Your task to perform on an android device: toggle pop-ups in chrome Image 0: 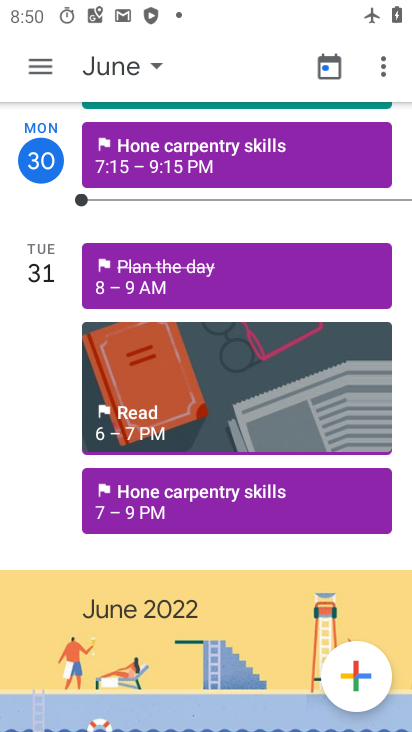
Step 0: drag from (340, 385) to (366, 137)
Your task to perform on an android device: toggle pop-ups in chrome Image 1: 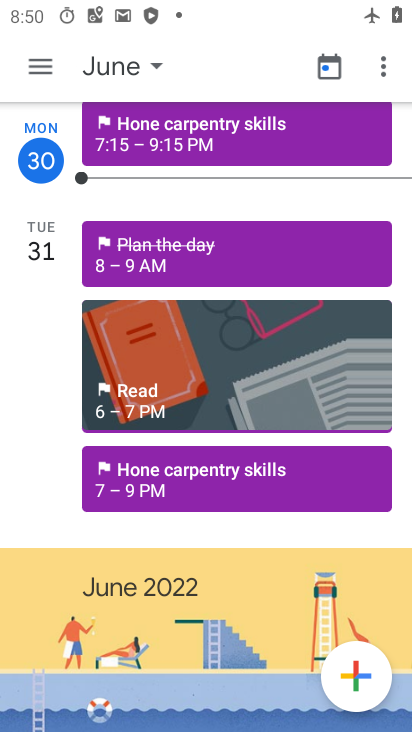
Step 1: press home button
Your task to perform on an android device: toggle pop-ups in chrome Image 2: 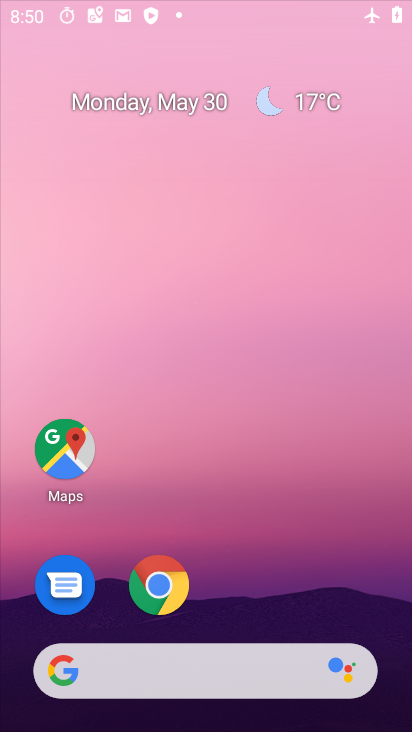
Step 2: drag from (226, 414) to (296, 9)
Your task to perform on an android device: toggle pop-ups in chrome Image 3: 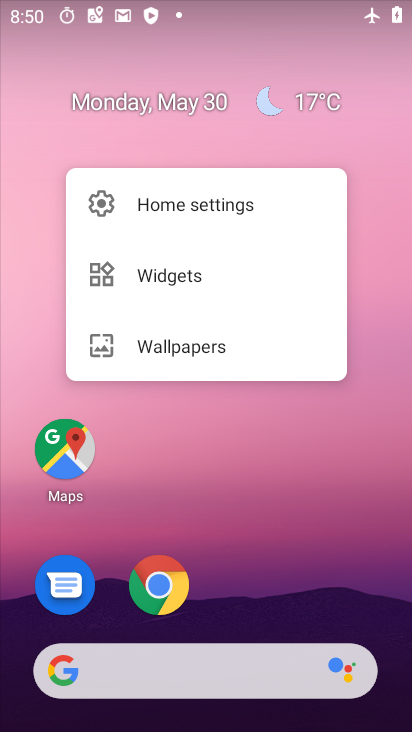
Step 3: click (213, 548)
Your task to perform on an android device: toggle pop-ups in chrome Image 4: 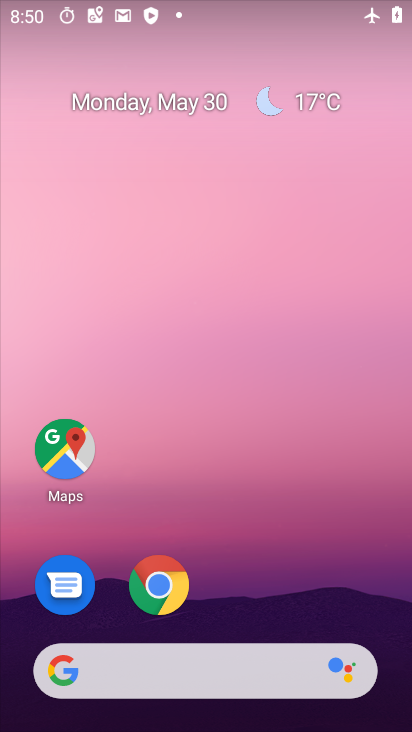
Step 4: click (162, 589)
Your task to perform on an android device: toggle pop-ups in chrome Image 5: 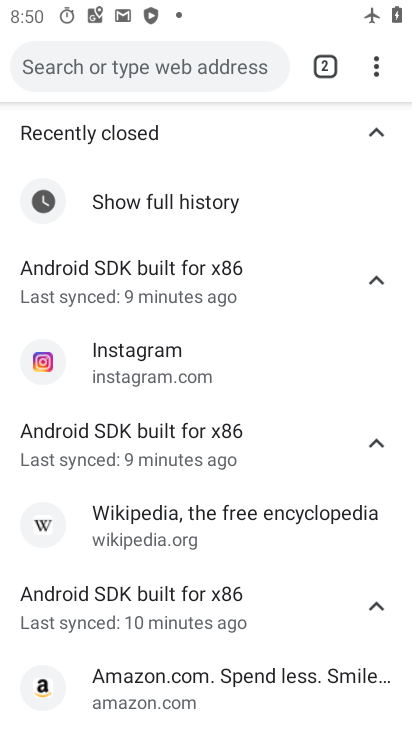
Step 5: drag from (383, 61) to (143, 559)
Your task to perform on an android device: toggle pop-ups in chrome Image 6: 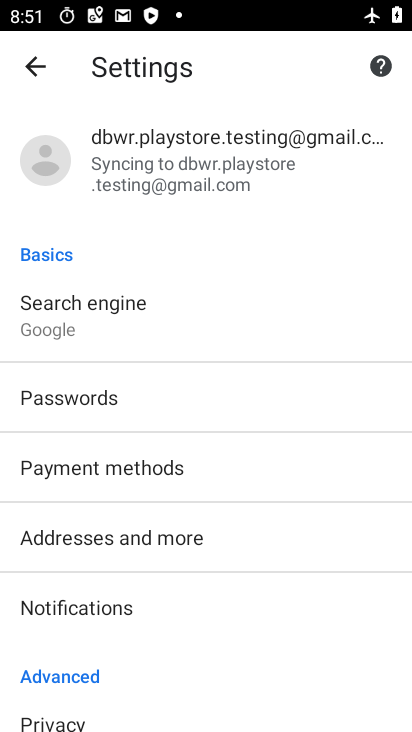
Step 6: drag from (151, 651) to (355, 243)
Your task to perform on an android device: toggle pop-ups in chrome Image 7: 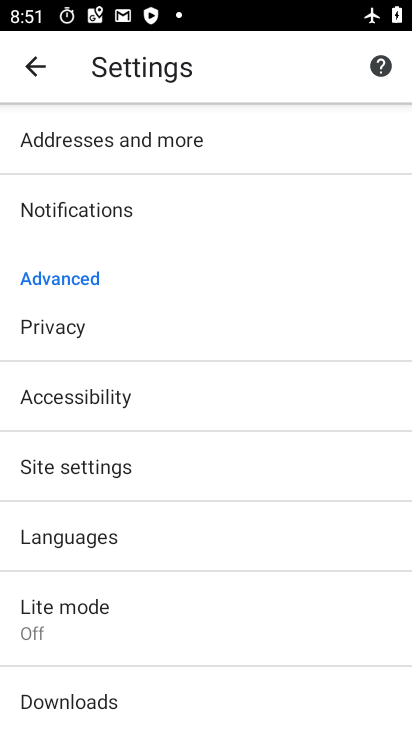
Step 7: click (107, 467)
Your task to perform on an android device: toggle pop-ups in chrome Image 8: 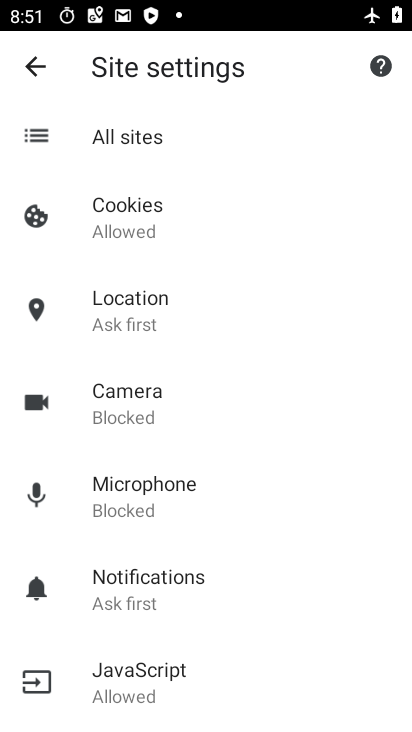
Step 8: drag from (294, 166) to (308, 43)
Your task to perform on an android device: toggle pop-ups in chrome Image 9: 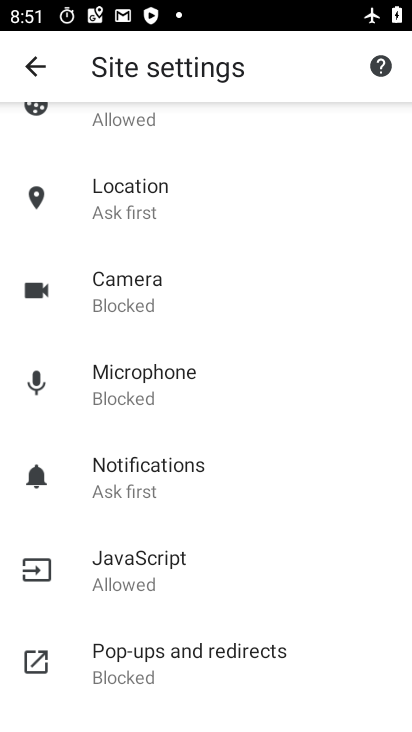
Step 9: click (129, 645)
Your task to perform on an android device: toggle pop-ups in chrome Image 10: 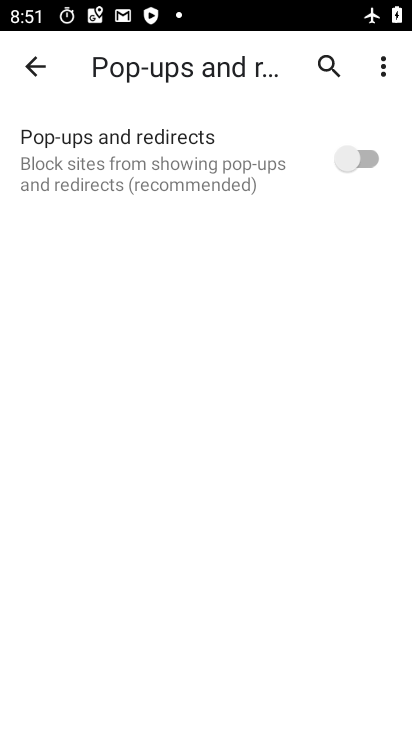
Step 10: click (302, 166)
Your task to perform on an android device: toggle pop-ups in chrome Image 11: 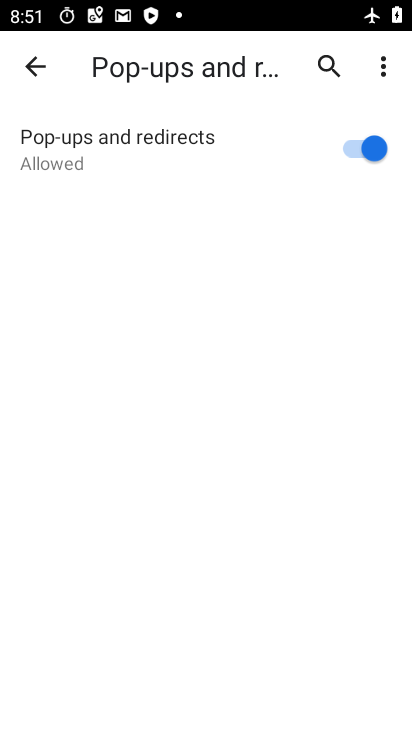
Step 11: task complete